Your task to perform on an android device: open app "Cash App" (install if not already installed) Image 0: 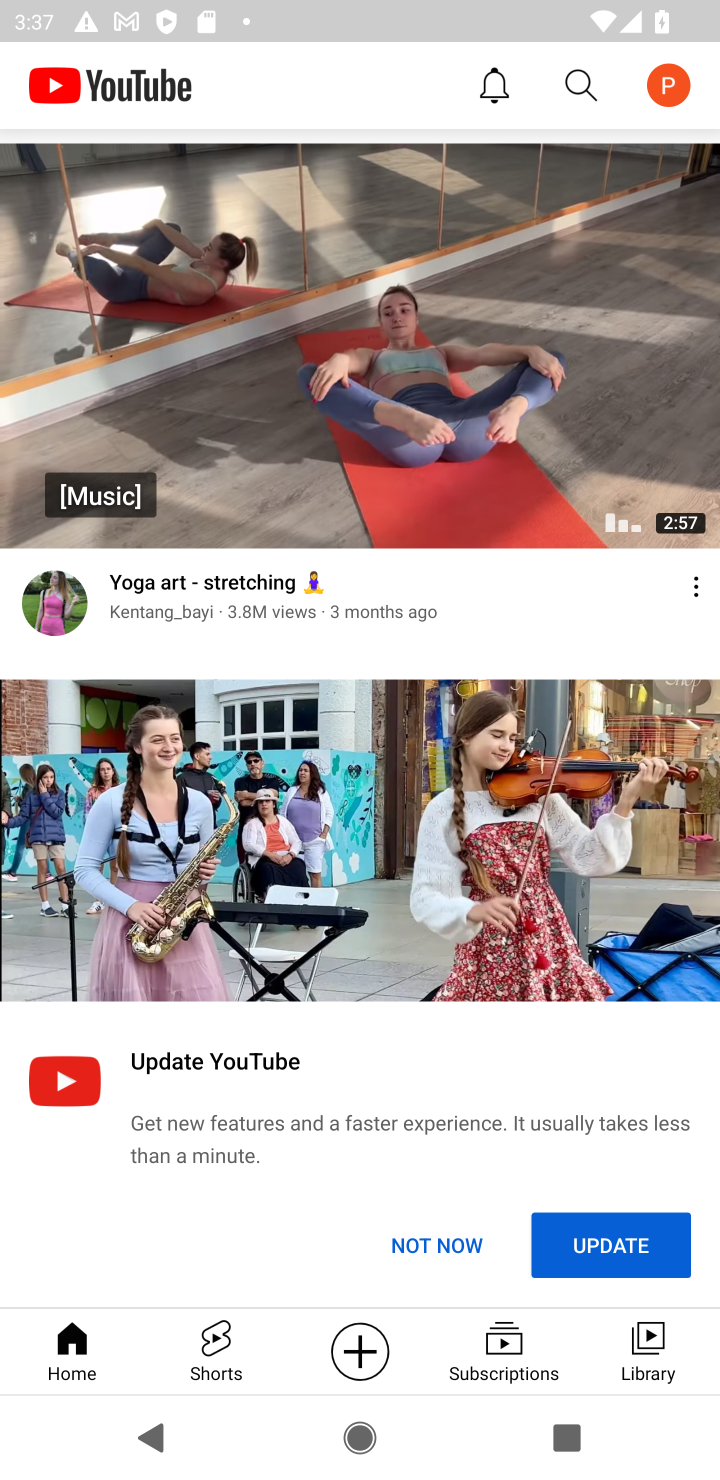
Step 0: press home button
Your task to perform on an android device: open app "Cash App" (install if not already installed) Image 1: 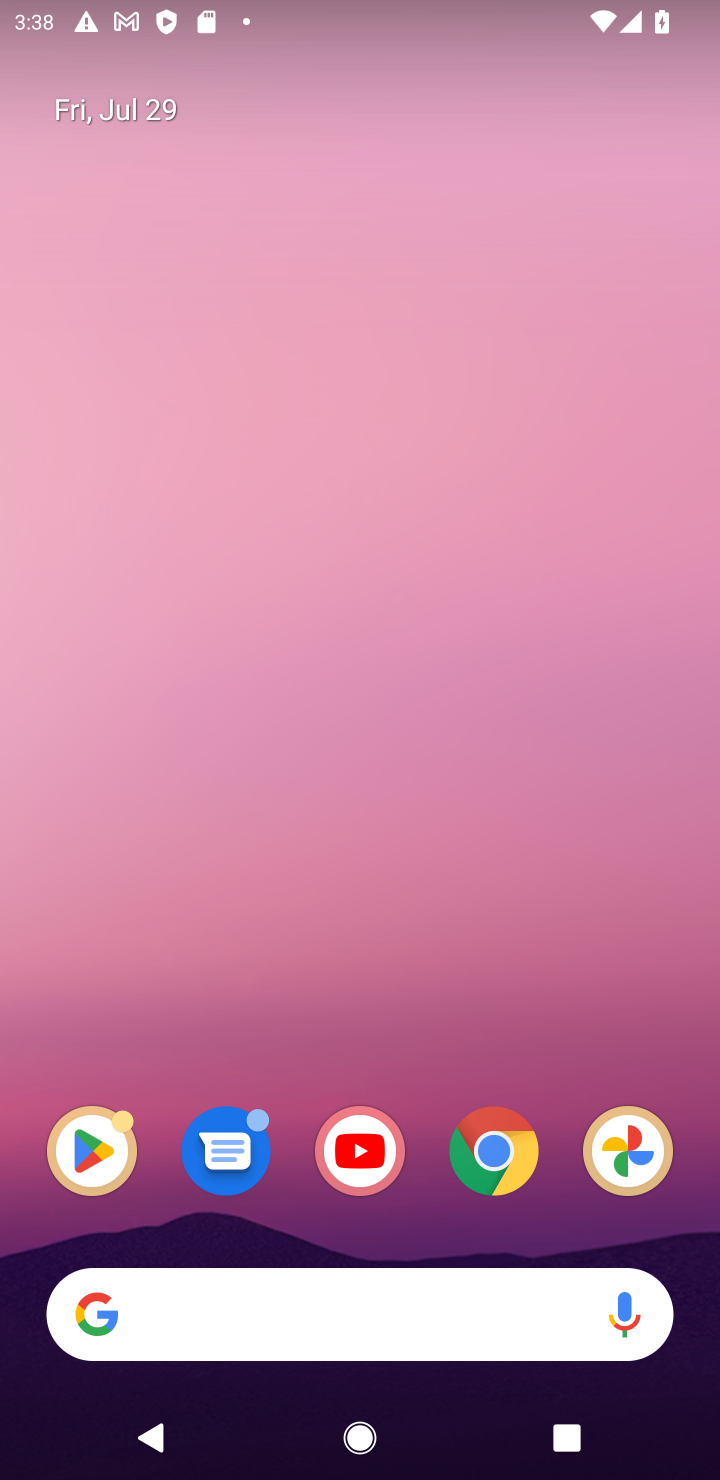
Step 1: click (96, 1148)
Your task to perform on an android device: open app "Cash App" (install if not already installed) Image 2: 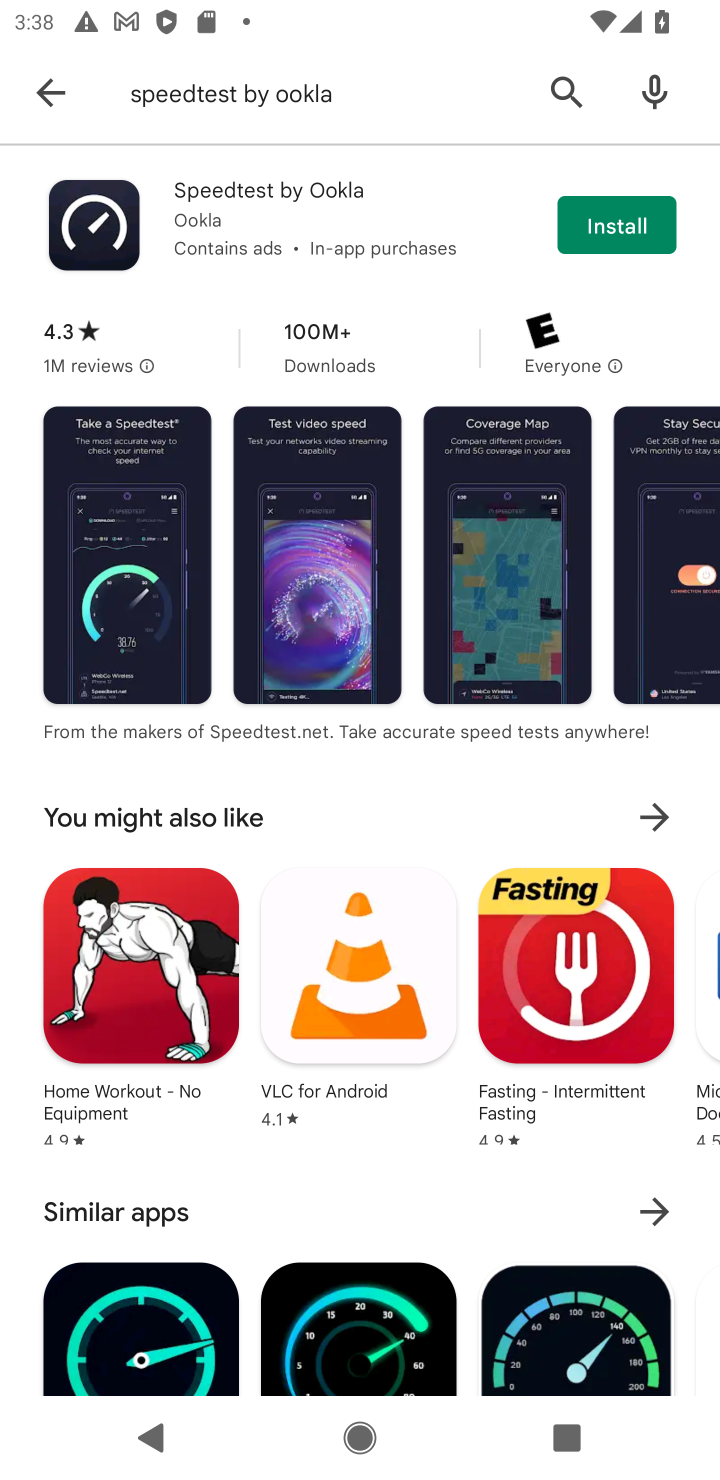
Step 2: click (568, 98)
Your task to perform on an android device: open app "Cash App" (install if not already installed) Image 3: 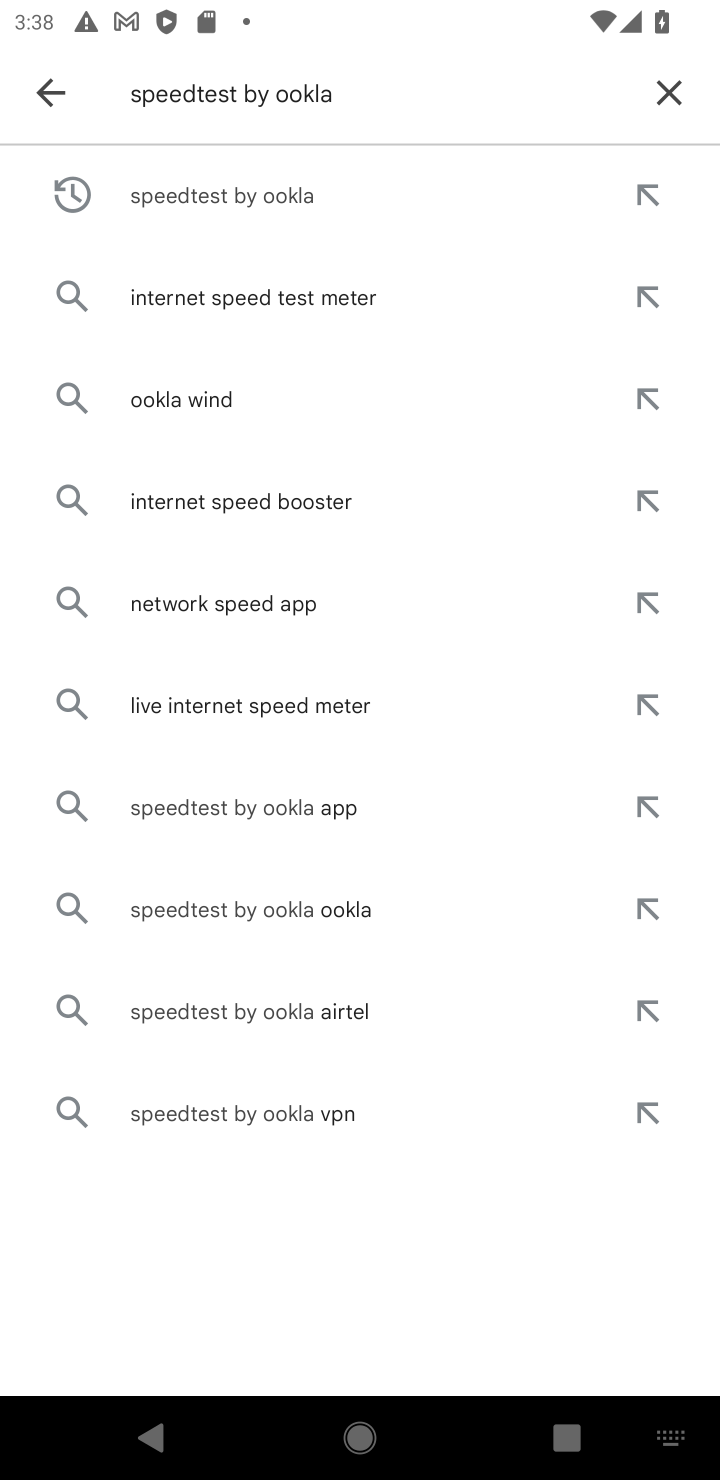
Step 3: click (689, 84)
Your task to perform on an android device: open app "Cash App" (install if not already installed) Image 4: 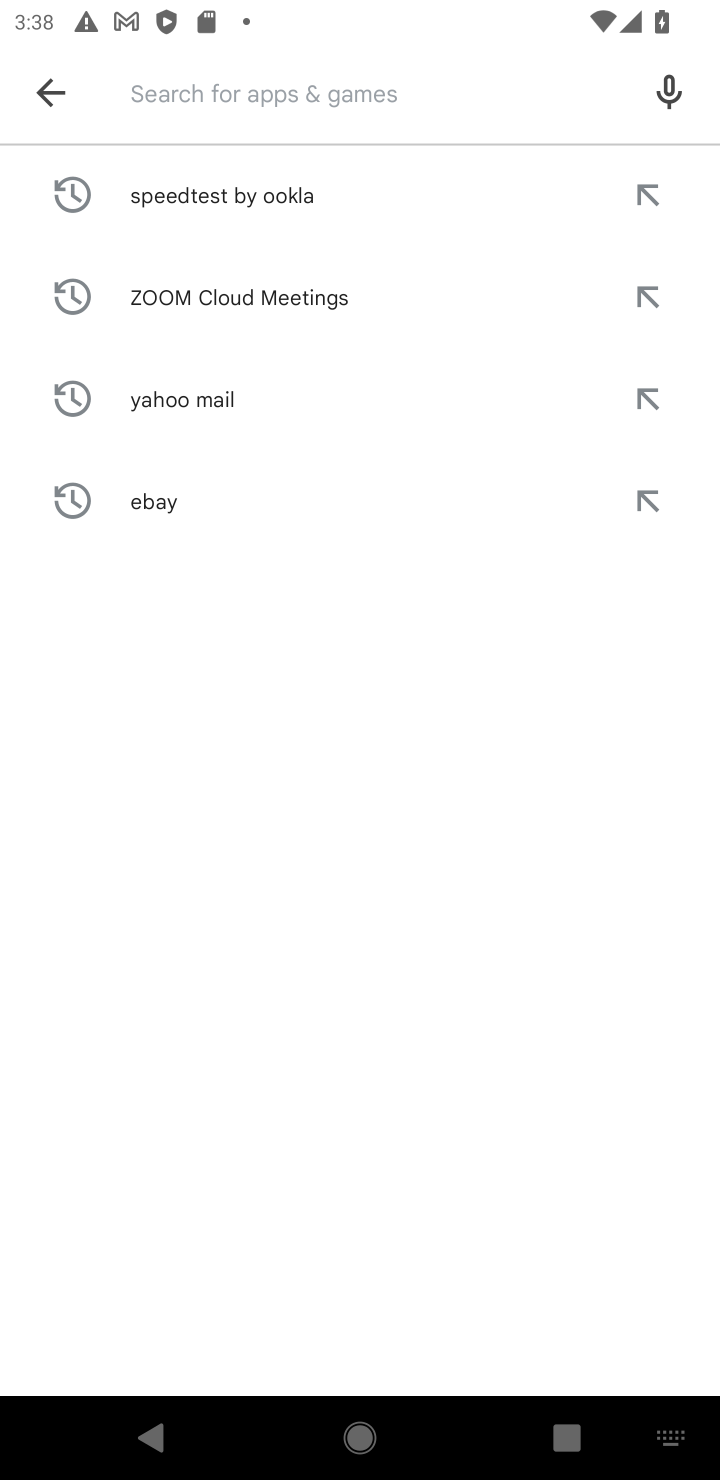
Step 4: type "Cash App"
Your task to perform on an android device: open app "Cash App" (install if not already installed) Image 5: 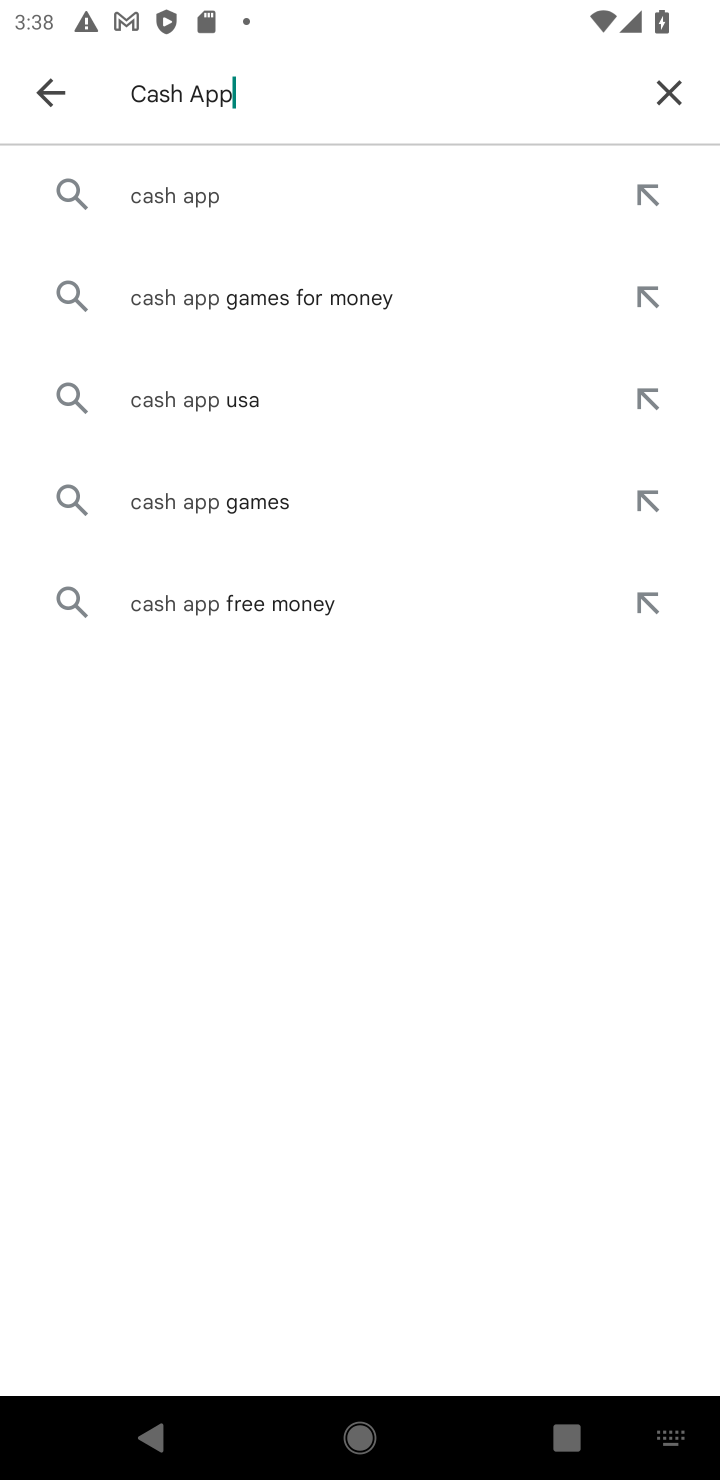
Step 5: click (366, 194)
Your task to perform on an android device: open app "Cash App" (install if not already installed) Image 6: 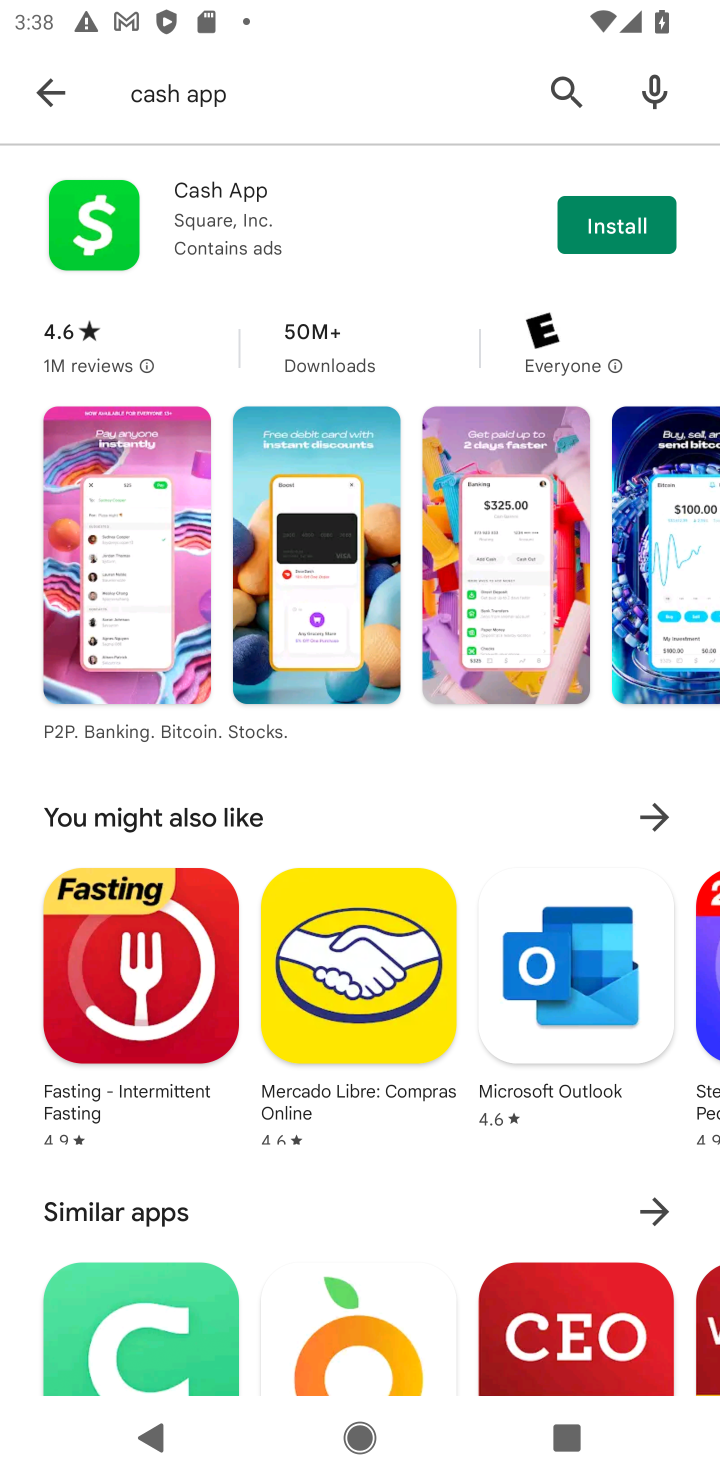
Step 6: click (648, 219)
Your task to perform on an android device: open app "Cash App" (install if not already installed) Image 7: 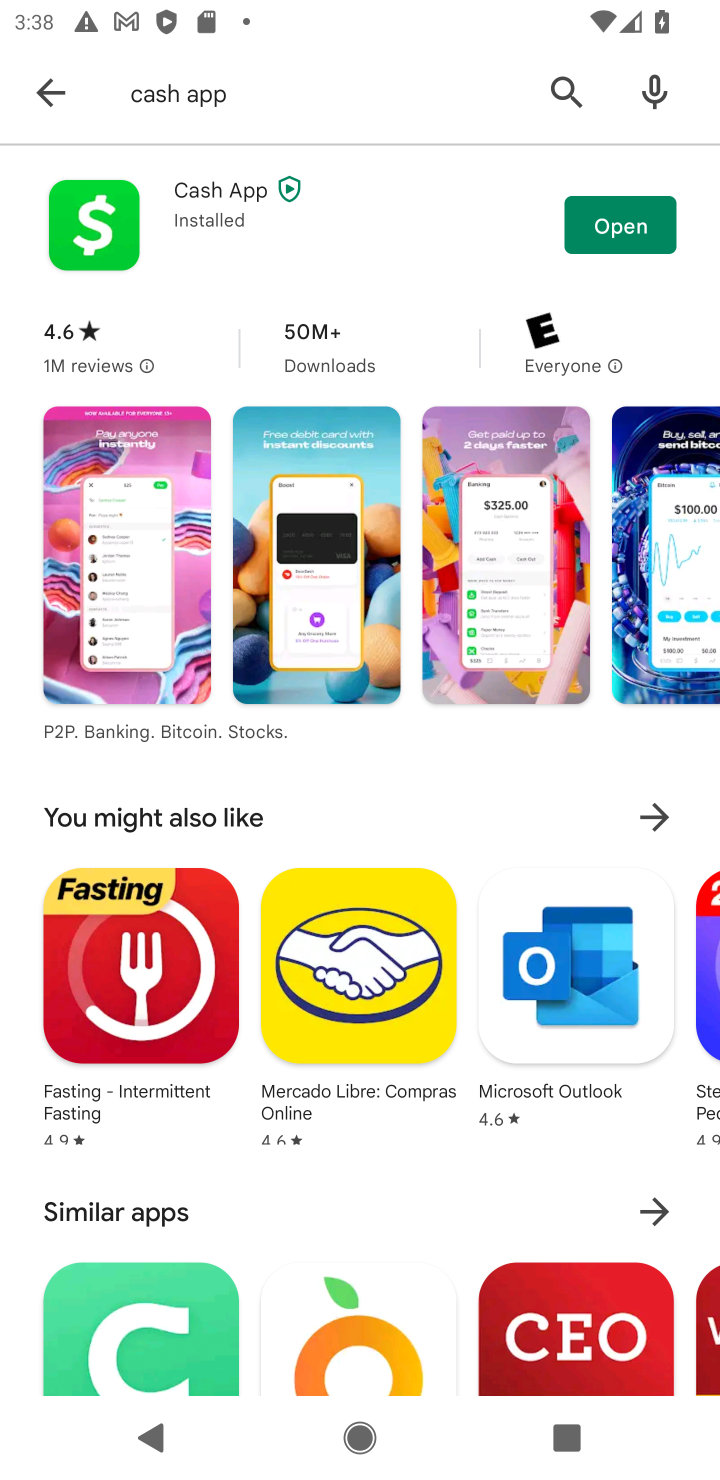
Step 7: click (633, 239)
Your task to perform on an android device: open app "Cash App" (install if not already installed) Image 8: 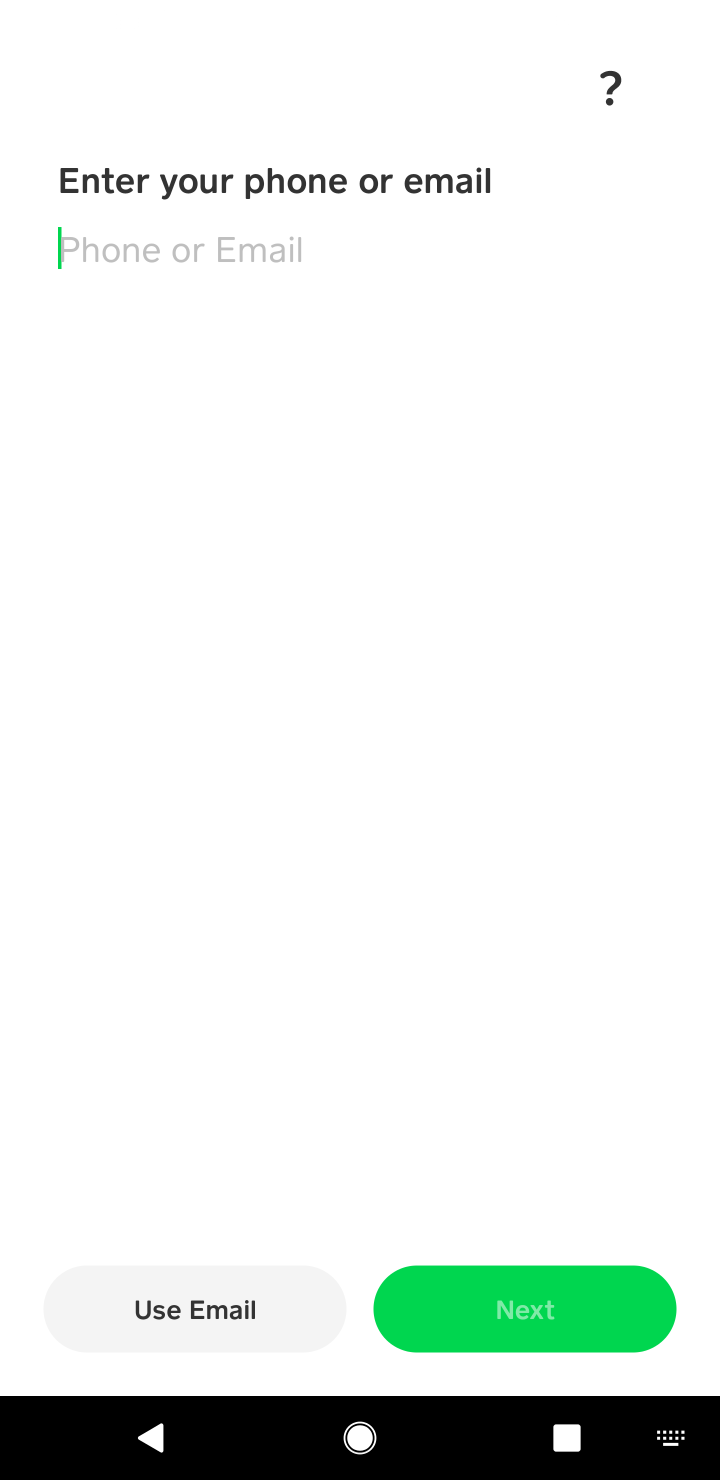
Step 8: task complete